Your task to perform on an android device: set the stopwatch Image 0: 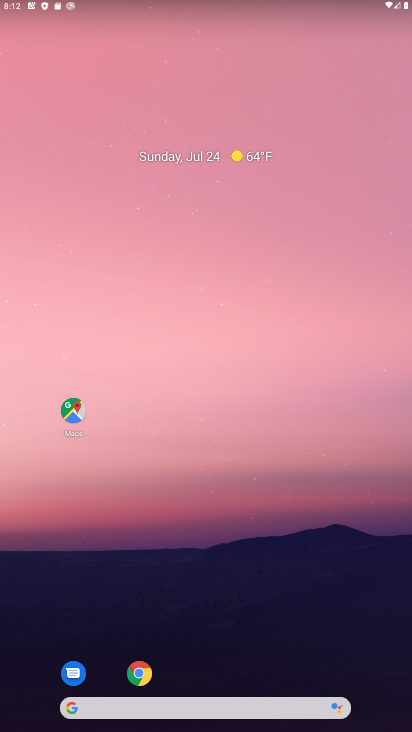
Step 0: drag from (375, 621) to (359, 84)
Your task to perform on an android device: set the stopwatch Image 1: 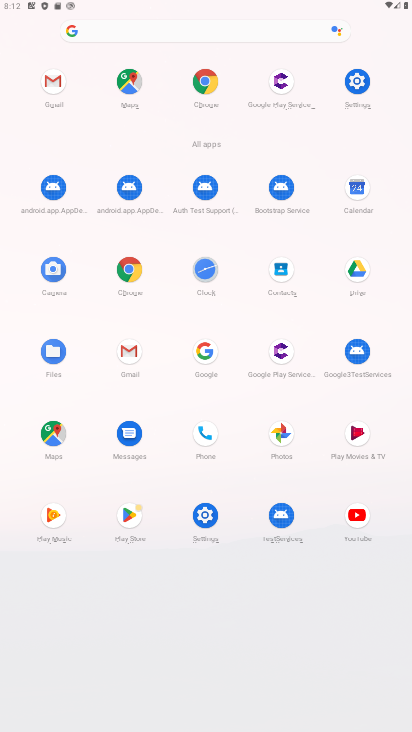
Step 1: click (198, 265)
Your task to perform on an android device: set the stopwatch Image 2: 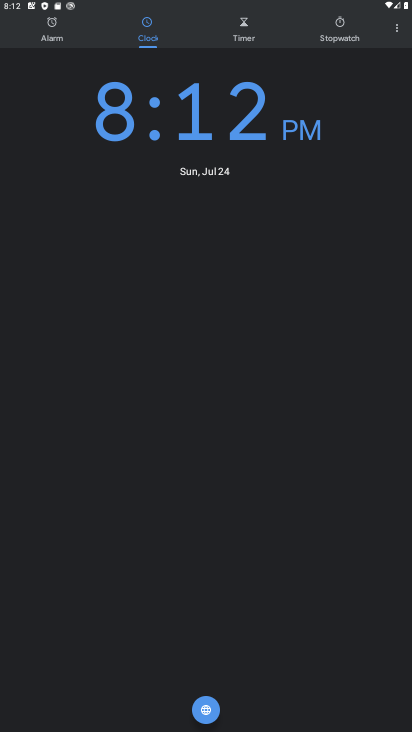
Step 2: click (341, 29)
Your task to perform on an android device: set the stopwatch Image 3: 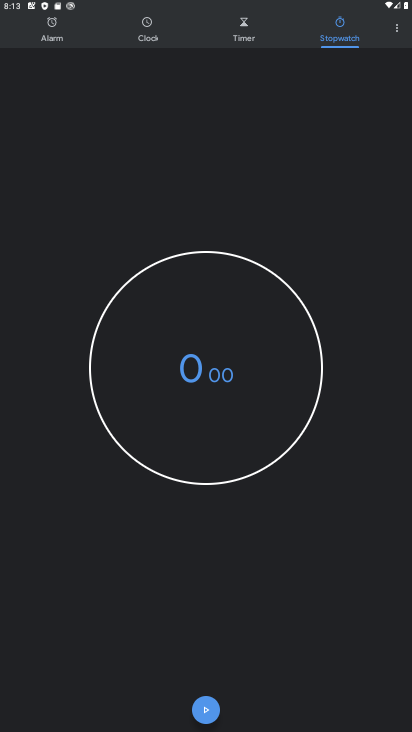
Step 3: task complete